Your task to perform on an android device: star an email in the gmail app Image 0: 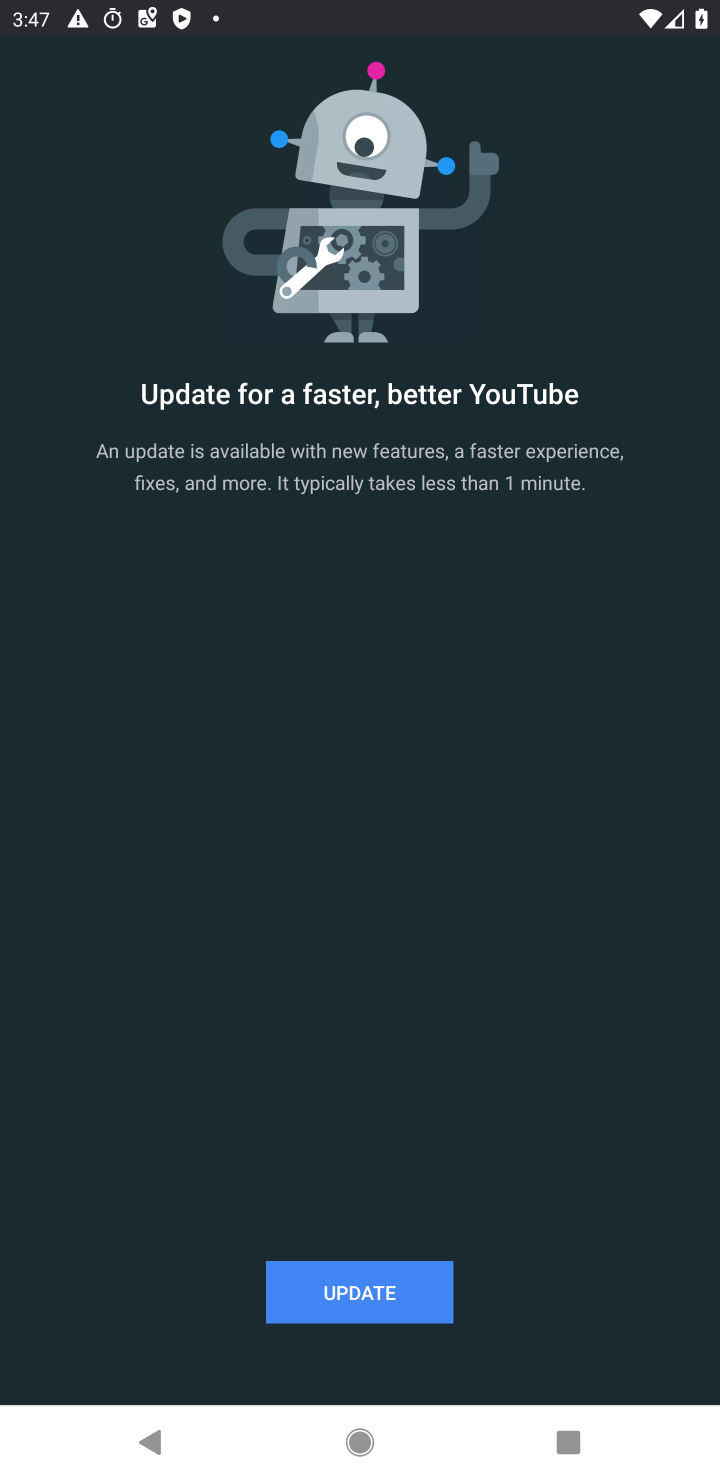
Step 0: press home button
Your task to perform on an android device: star an email in the gmail app Image 1: 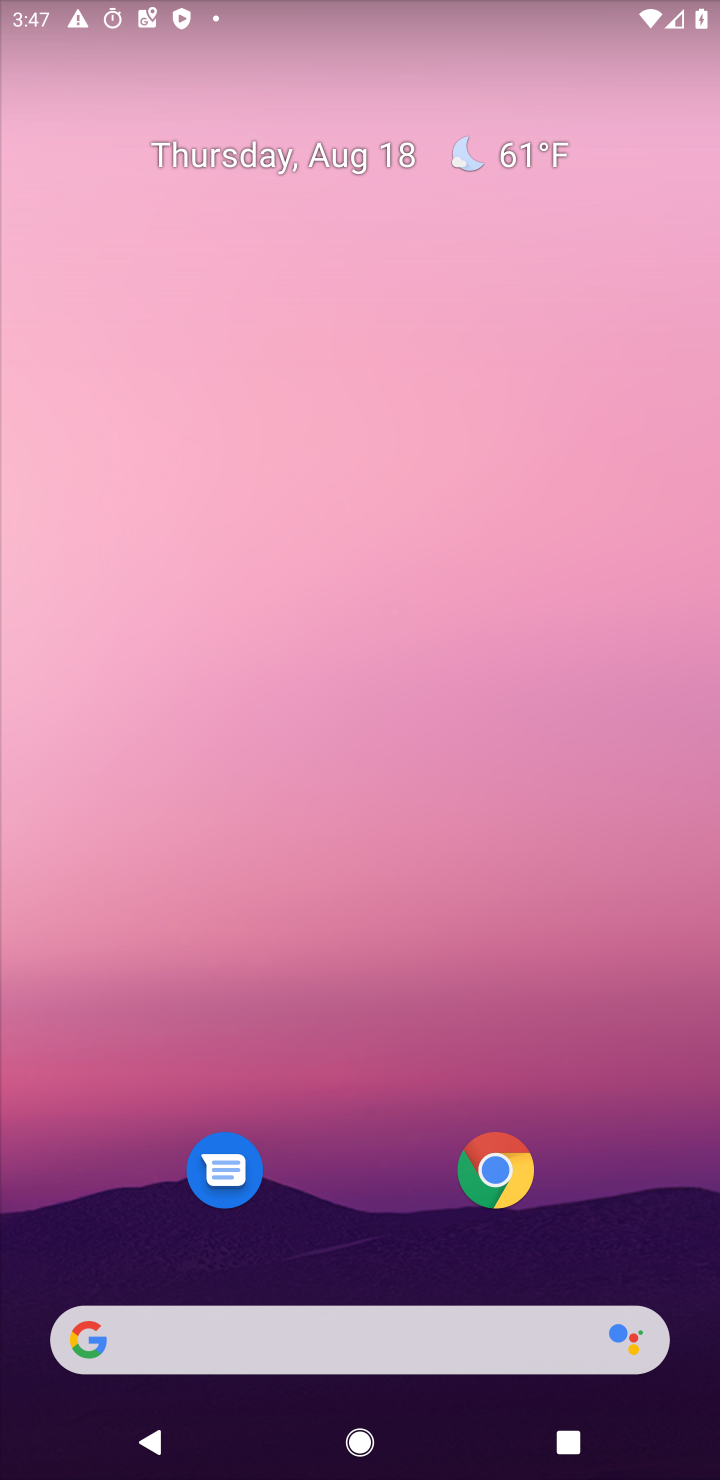
Step 1: task complete